Your task to perform on an android device: set default search engine in the chrome app Image 0: 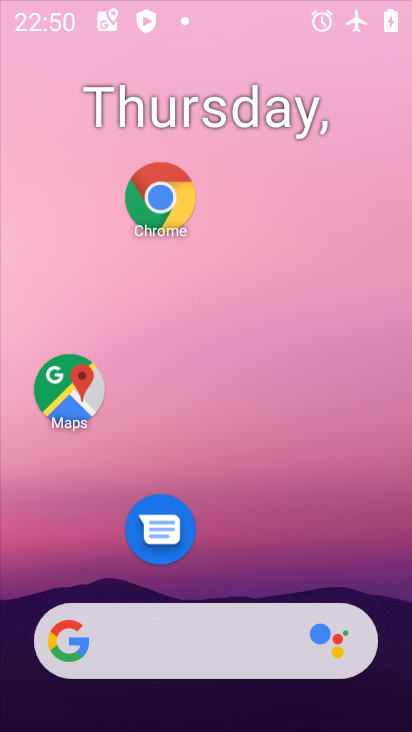
Step 0: drag from (278, 513) to (258, 103)
Your task to perform on an android device: set default search engine in the chrome app Image 1: 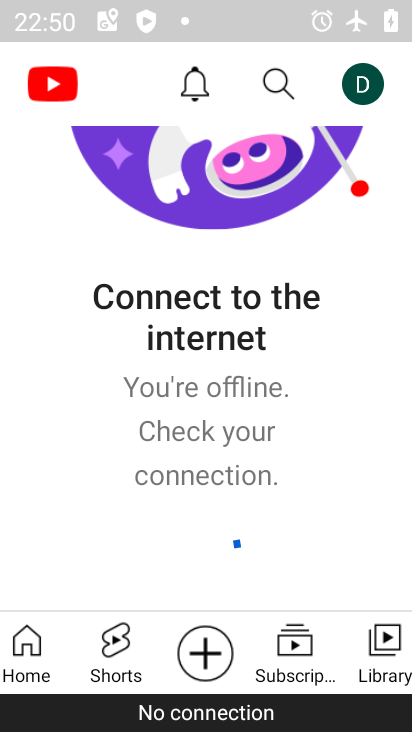
Step 1: press home button
Your task to perform on an android device: set default search engine in the chrome app Image 2: 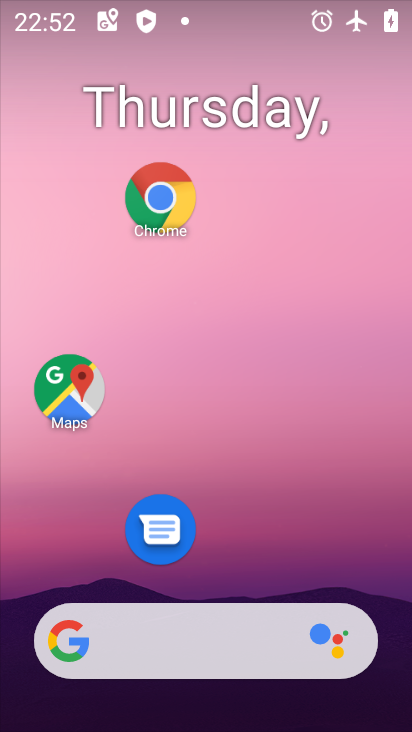
Step 2: click (164, 196)
Your task to perform on an android device: set default search engine in the chrome app Image 3: 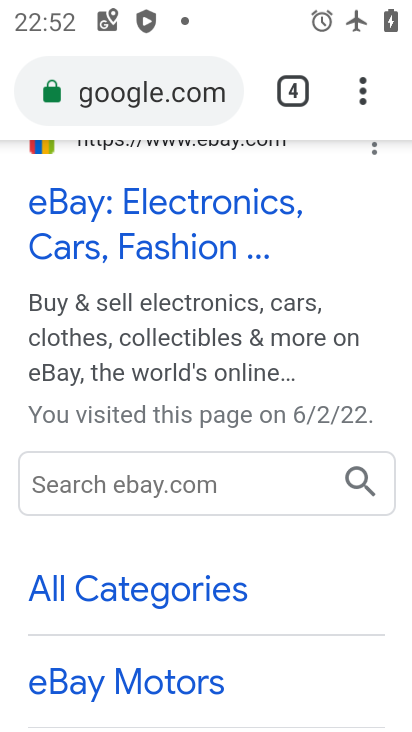
Step 3: click (365, 82)
Your task to perform on an android device: set default search engine in the chrome app Image 4: 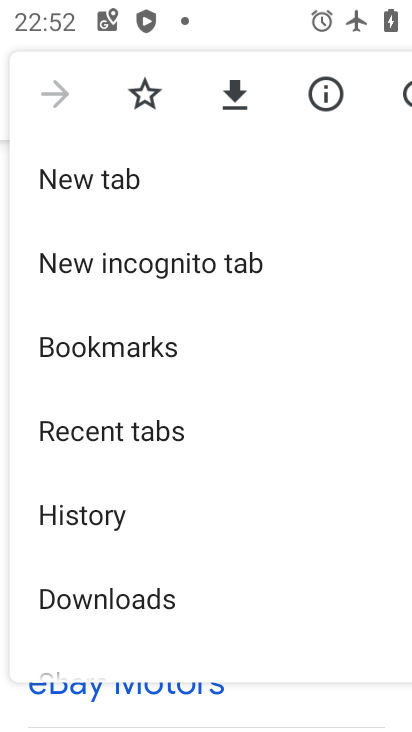
Step 4: drag from (256, 535) to (226, 162)
Your task to perform on an android device: set default search engine in the chrome app Image 5: 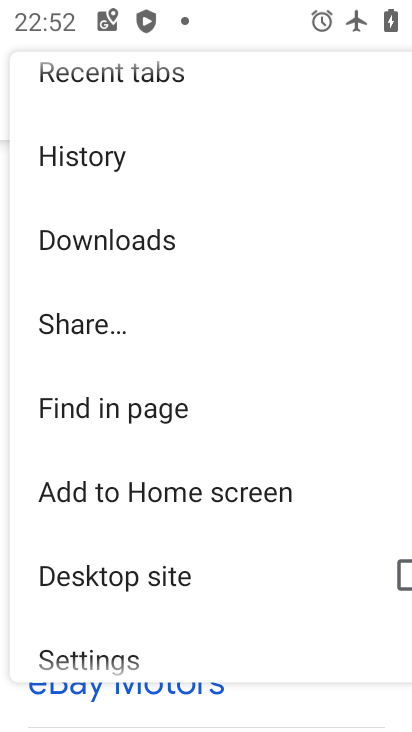
Step 5: click (114, 651)
Your task to perform on an android device: set default search engine in the chrome app Image 6: 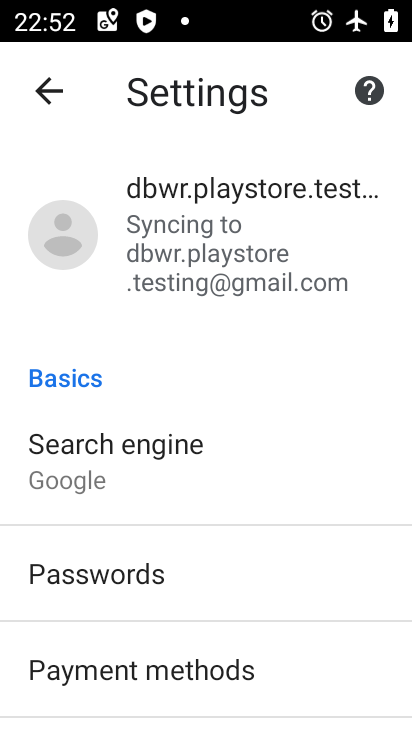
Step 6: click (113, 448)
Your task to perform on an android device: set default search engine in the chrome app Image 7: 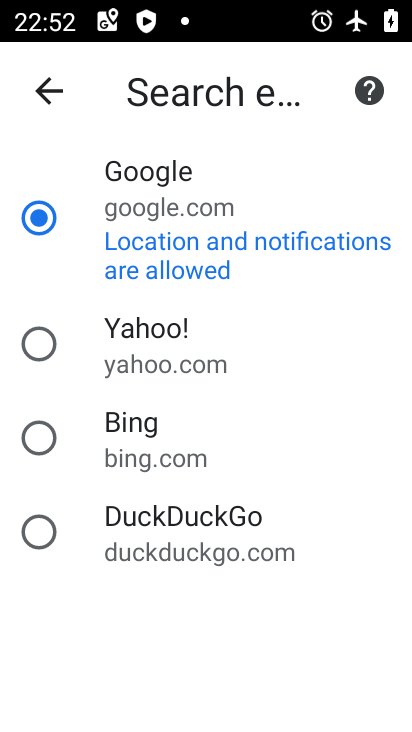
Step 7: task complete